Your task to perform on an android device: Is it going to rain today? Image 0: 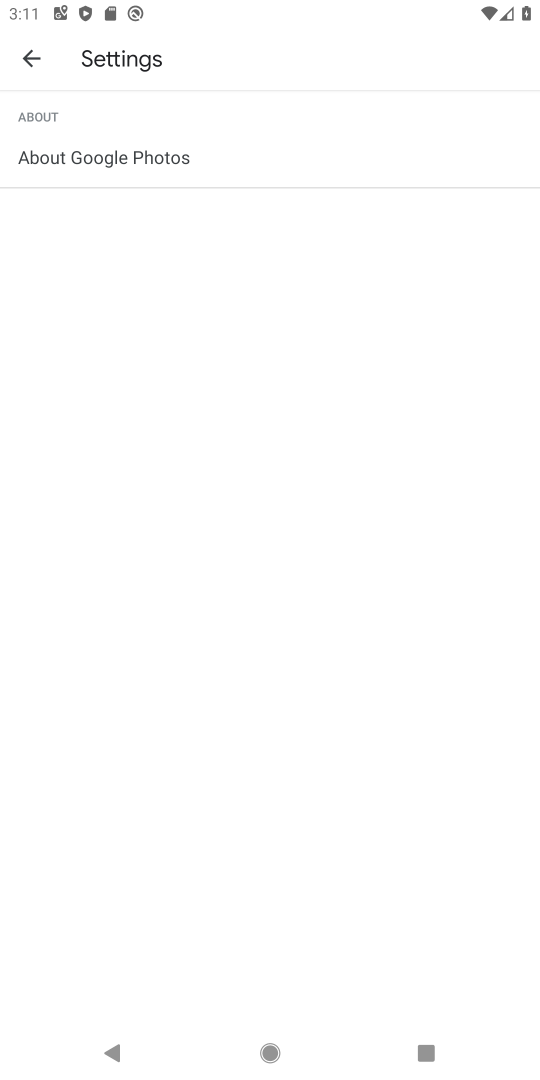
Step 0: press home button
Your task to perform on an android device: Is it going to rain today? Image 1: 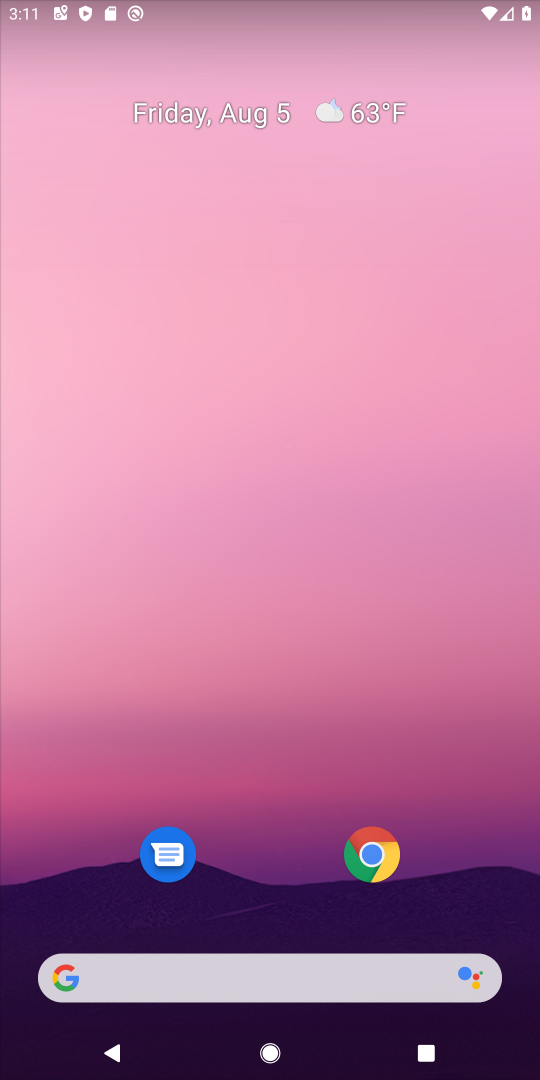
Step 1: click (134, 977)
Your task to perform on an android device: Is it going to rain today? Image 2: 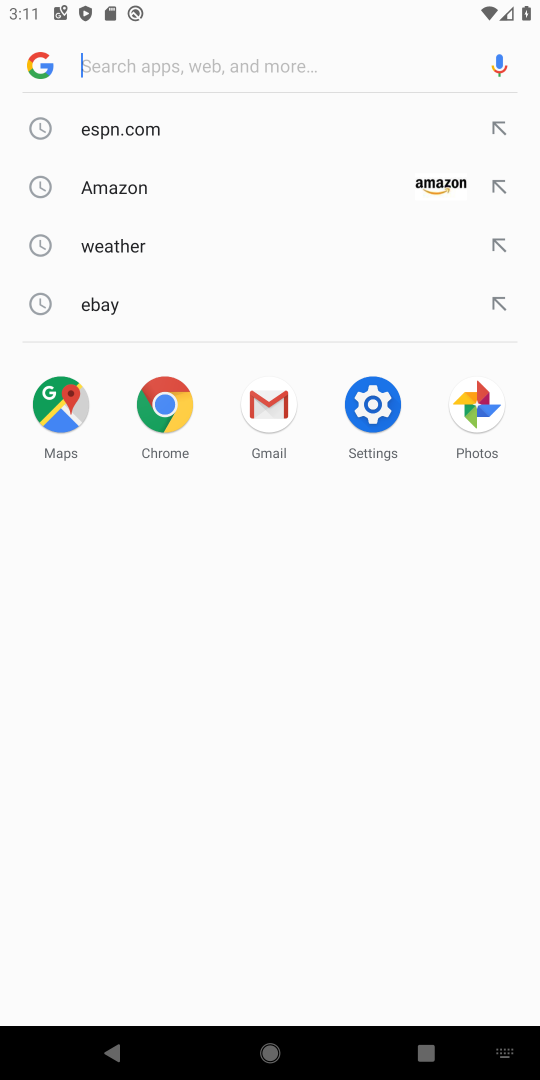
Step 2: drag from (294, 1055) to (312, 903)
Your task to perform on an android device: Is it going to rain today? Image 3: 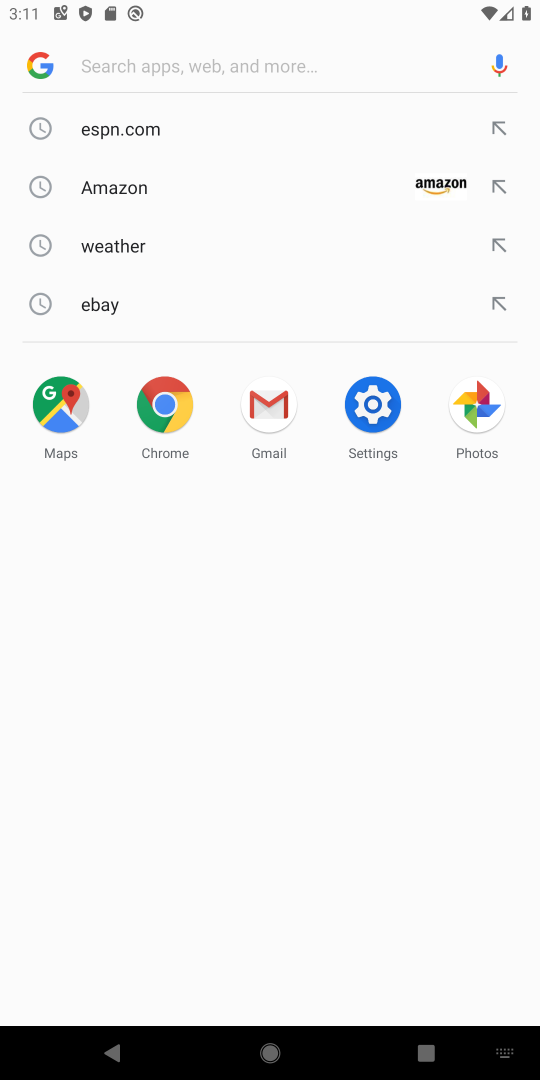
Step 3: type "Is it going to rain today?"
Your task to perform on an android device: Is it going to rain today? Image 4: 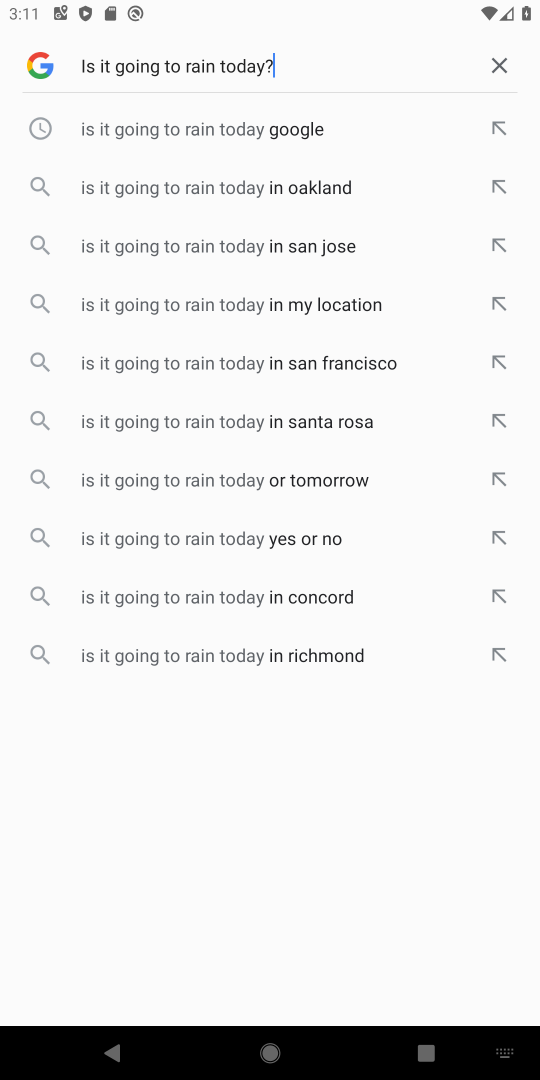
Step 4: task complete